Your task to perform on an android device: Search for Mexican restaurants on Maps Image 0: 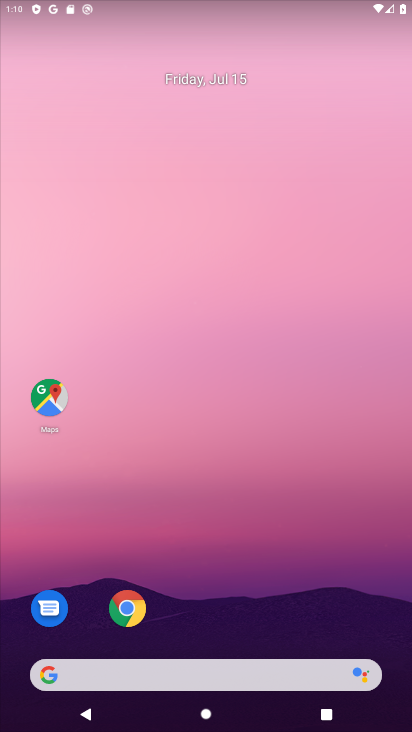
Step 0: click (40, 393)
Your task to perform on an android device: Search for Mexican restaurants on Maps Image 1: 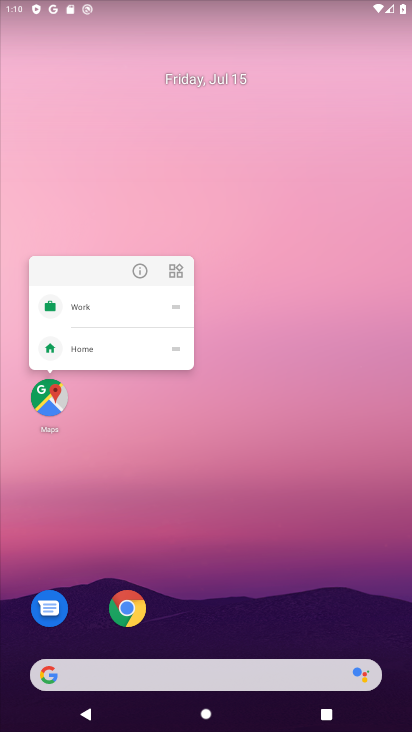
Step 1: click (40, 394)
Your task to perform on an android device: Search for Mexican restaurants on Maps Image 2: 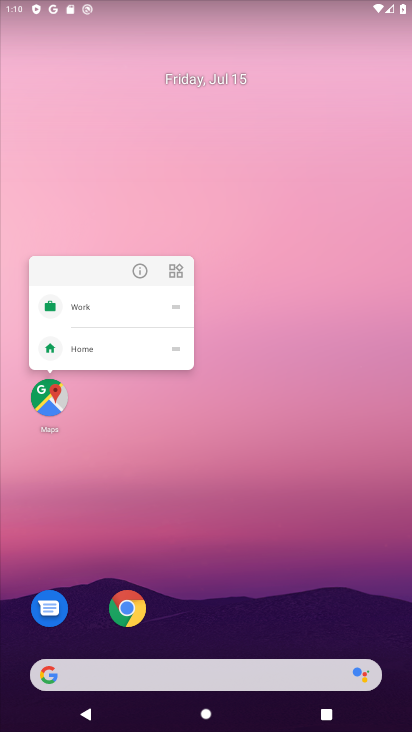
Step 2: click (40, 394)
Your task to perform on an android device: Search for Mexican restaurants on Maps Image 3: 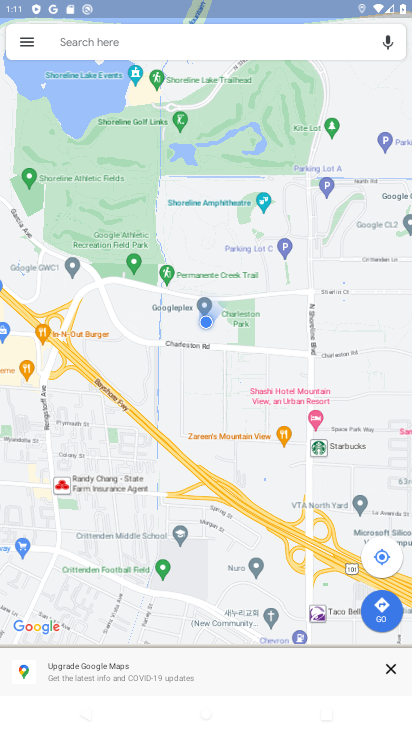
Step 3: click (70, 35)
Your task to perform on an android device: Search for Mexican restaurants on Maps Image 4: 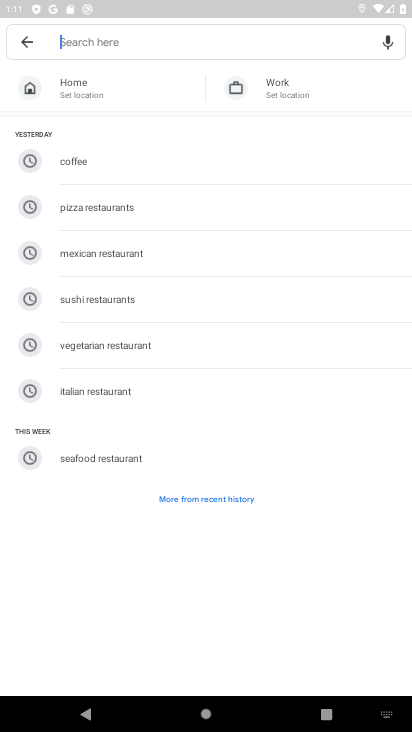
Step 4: click (125, 255)
Your task to perform on an android device: Search for Mexican restaurants on Maps Image 5: 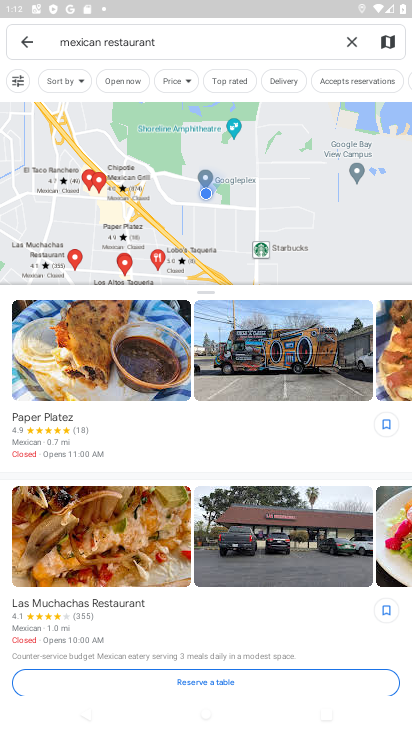
Step 5: task complete